Your task to perform on an android device: Check the weather Image 0: 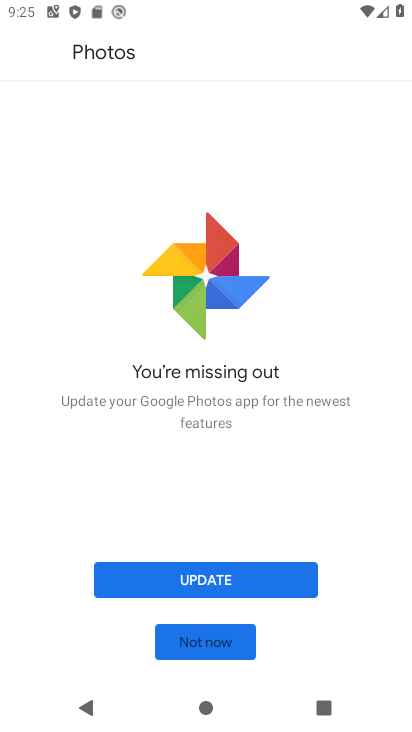
Step 0: press back button
Your task to perform on an android device: Check the weather Image 1: 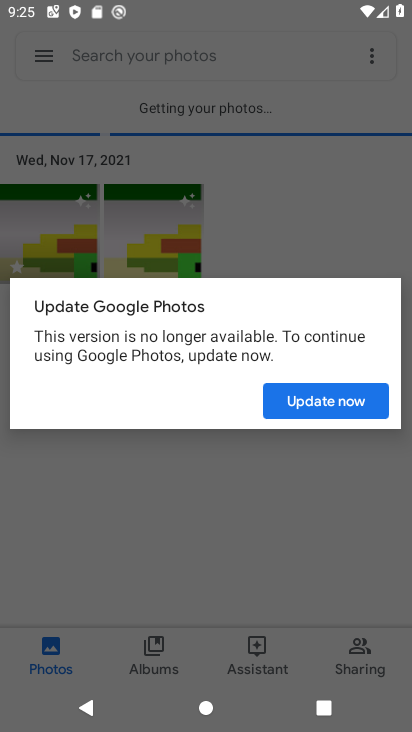
Step 1: press home button
Your task to perform on an android device: Check the weather Image 2: 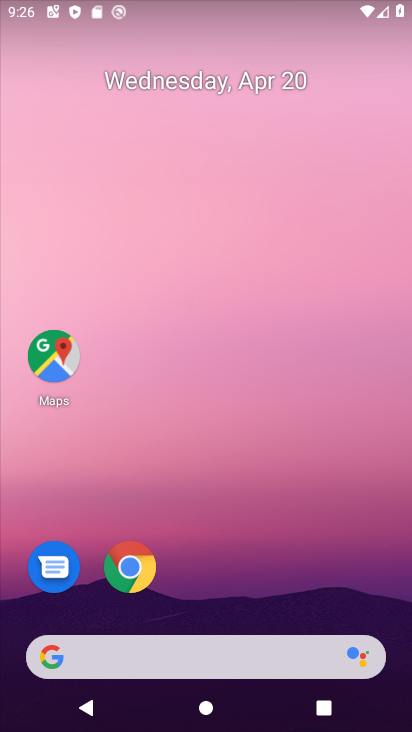
Step 2: drag from (254, 515) to (322, 114)
Your task to perform on an android device: Check the weather Image 3: 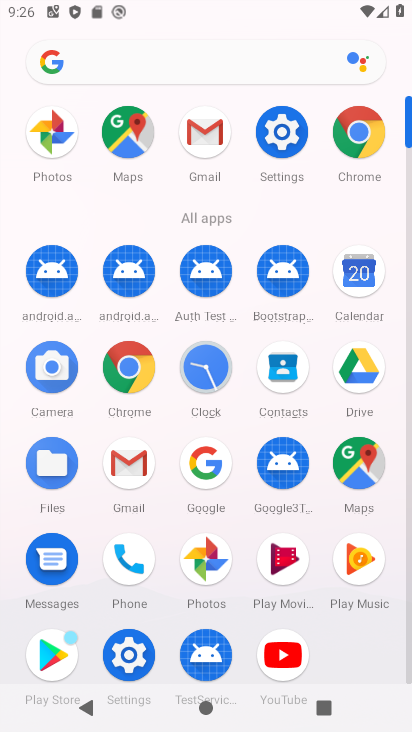
Step 3: click (207, 458)
Your task to perform on an android device: Check the weather Image 4: 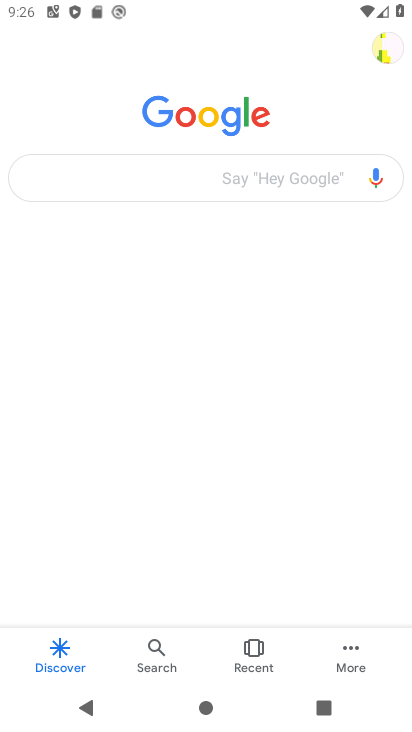
Step 4: click (110, 188)
Your task to perform on an android device: Check the weather Image 5: 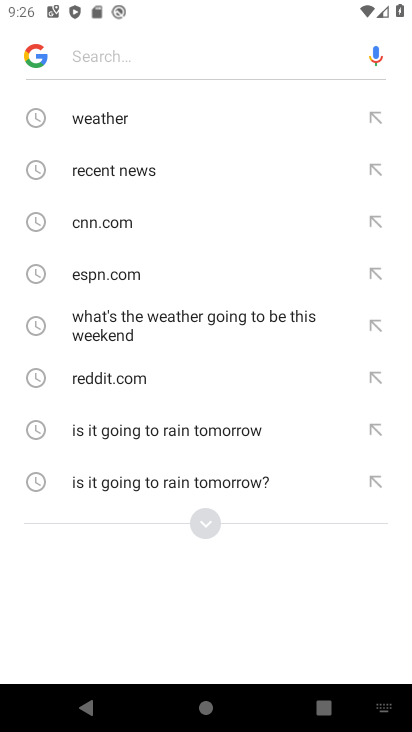
Step 5: click (137, 117)
Your task to perform on an android device: Check the weather Image 6: 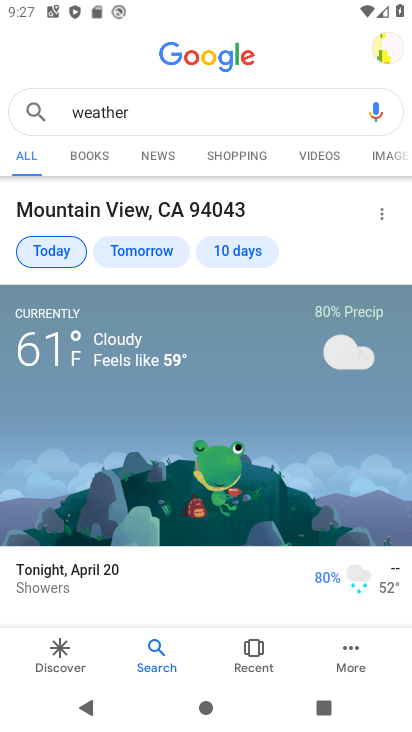
Step 6: task complete